Your task to perform on an android device: Show me popular games on the Play Store Image 0: 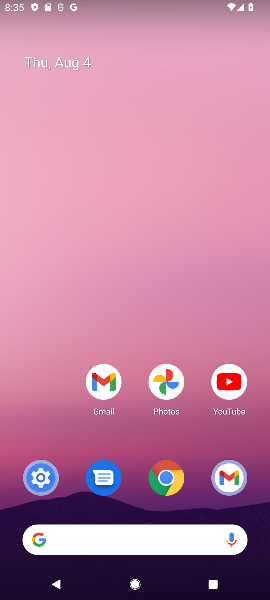
Step 0: press home button
Your task to perform on an android device: Show me popular games on the Play Store Image 1: 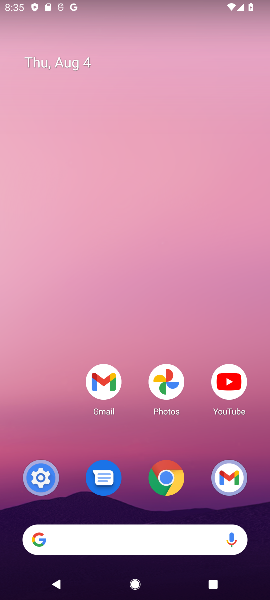
Step 1: drag from (151, 427) to (97, 87)
Your task to perform on an android device: Show me popular games on the Play Store Image 2: 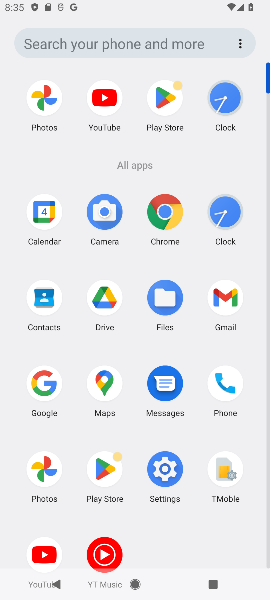
Step 2: click (166, 93)
Your task to perform on an android device: Show me popular games on the Play Store Image 3: 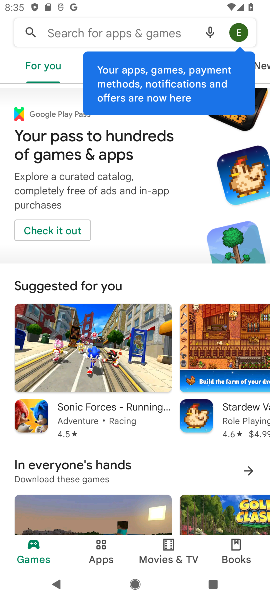
Step 3: click (141, 31)
Your task to perform on an android device: Show me popular games on the Play Store Image 4: 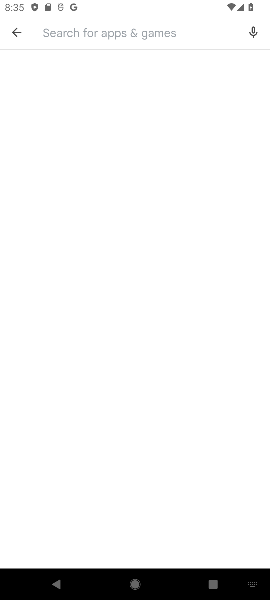
Step 4: type "popular games"
Your task to perform on an android device: Show me popular games on the Play Store Image 5: 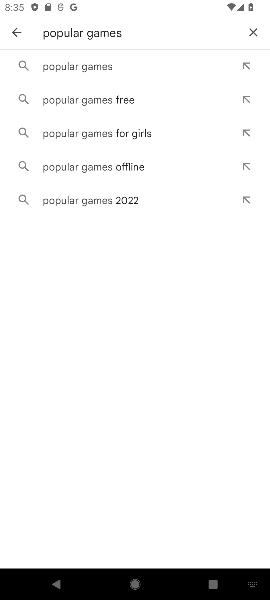
Step 5: click (84, 66)
Your task to perform on an android device: Show me popular games on the Play Store Image 6: 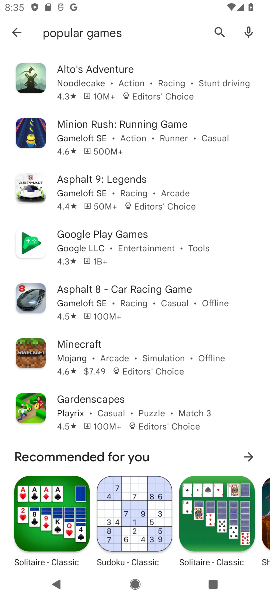
Step 6: task complete